Your task to perform on an android device: turn off location Image 0: 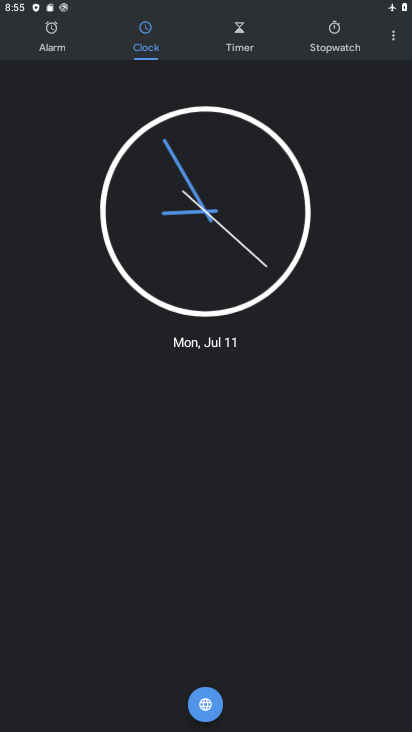
Step 0: press home button
Your task to perform on an android device: turn off location Image 1: 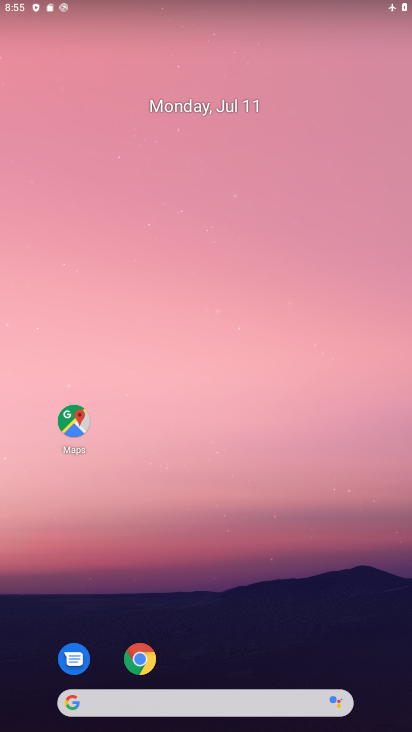
Step 1: drag from (233, 642) to (252, 141)
Your task to perform on an android device: turn off location Image 2: 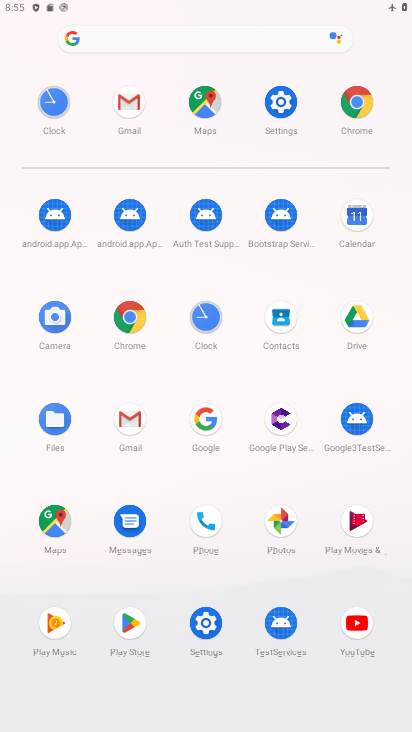
Step 2: click (282, 119)
Your task to perform on an android device: turn off location Image 3: 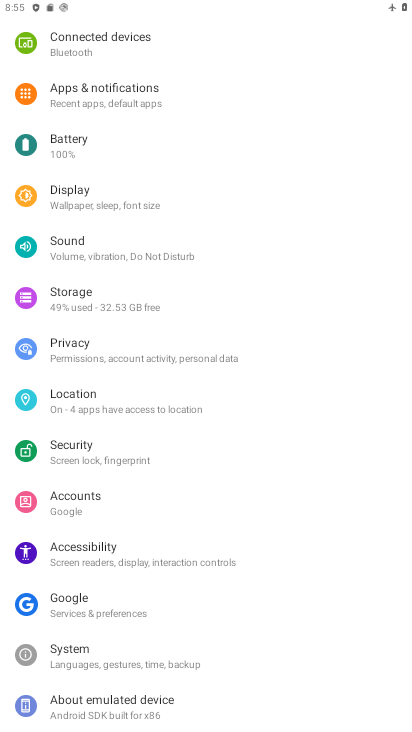
Step 3: click (197, 401)
Your task to perform on an android device: turn off location Image 4: 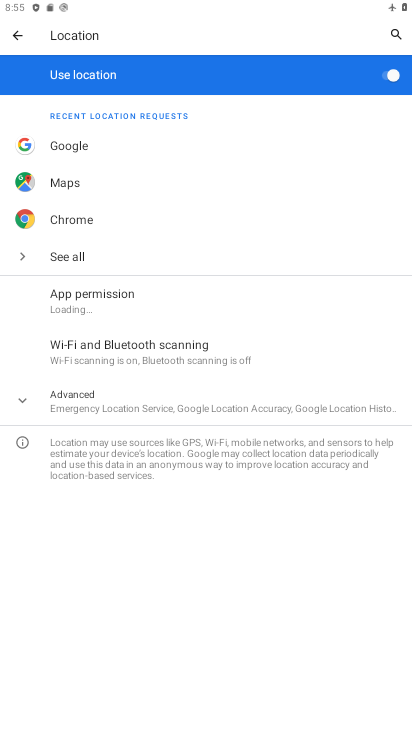
Step 4: click (386, 73)
Your task to perform on an android device: turn off location Image 5: 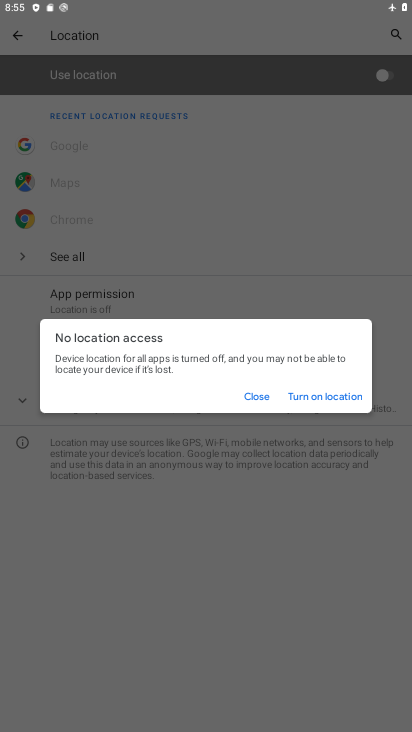
Step 5: task complete